Your task to perform on an android device: open chrome privacy settings Image 0: 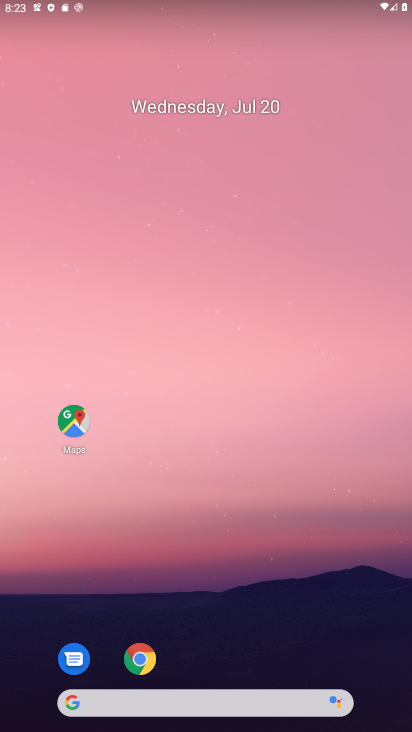
Step 0: drag from (210, 627) to (220, 169)
Your task to perform on an android device: open chrome privacy settings Image 1: 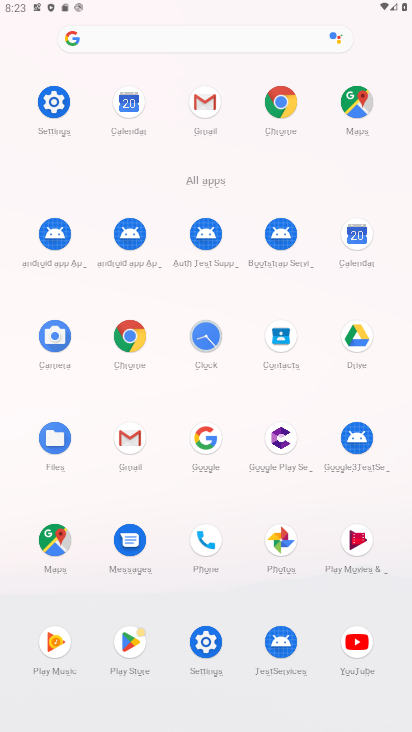
Step 1: click (131, 338)
Your task to perform on an android device: open chrome privacy settings Image 2: 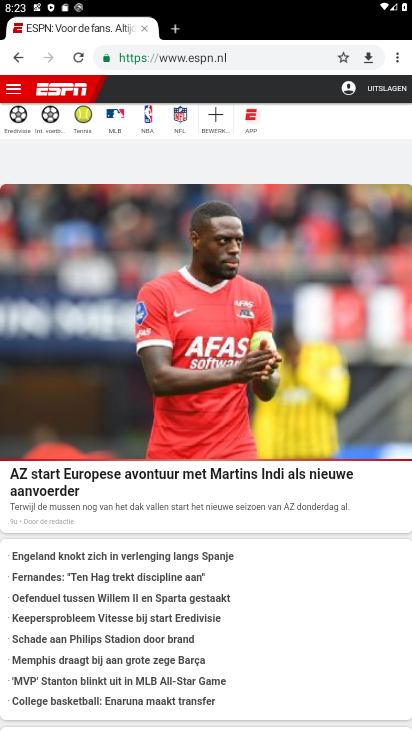
Step 2: press home button
Your task to perform on an android device: open chrome privacy settings Image 3: 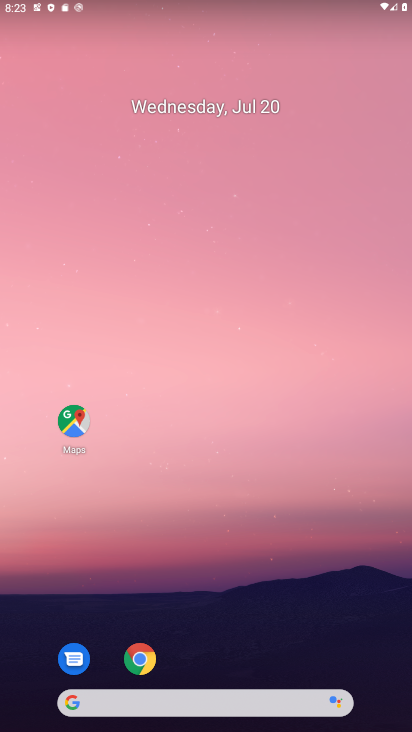
Step 3: drag from (304, 596) to (308, 266)
Your task to perform on an android device: open chrome privacy settings Image 4: 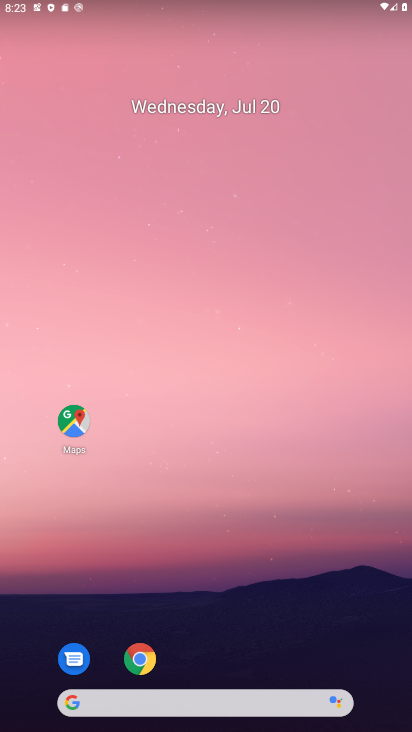
Step 4: drag from (202, 608) to (230, 79)
Your task to perform on an android device: open chrome privacy settings Image 5: 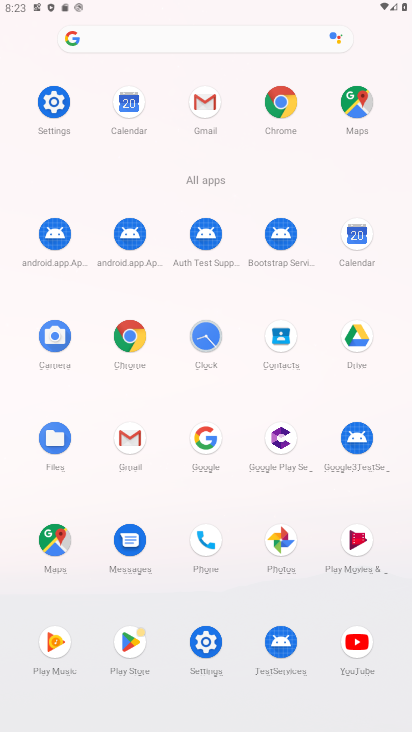
Step 5: click (139, 337)
Your task to perform on an android device: open chrome privacy settings Image 6: 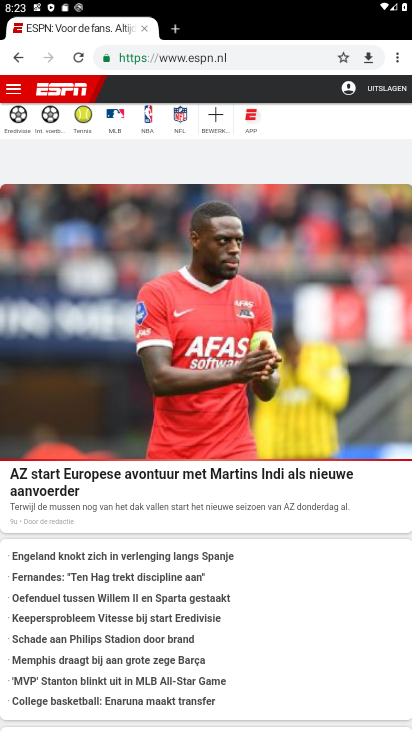
Step 6: drag from (397, 54) to (289, 374)
Your task to perform on an android device: open chrome privacy settings Image 7: 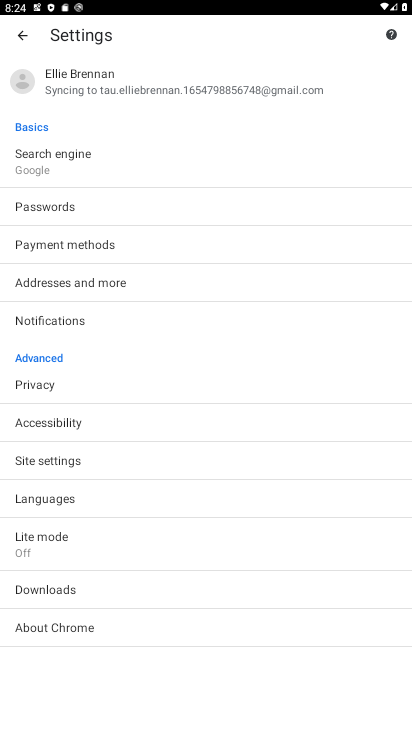
Step 7: click (33, 385)
Your task to perform on an android device: open chrome privacy settings Image 8: 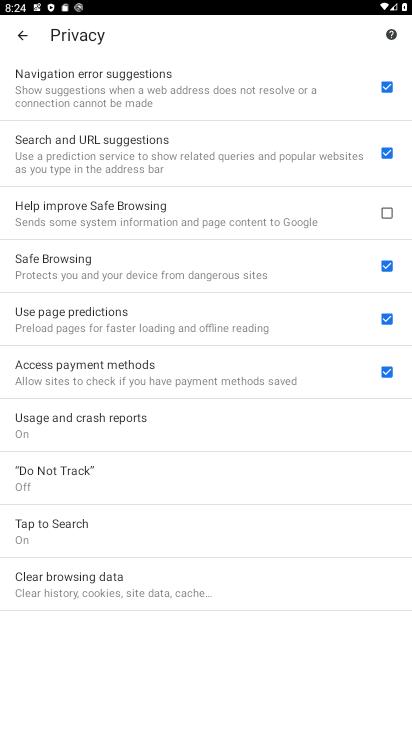
Step 8: task complete